Your task to perform on an android device: read, delete, or share a saved page in the chrome app Image 0: 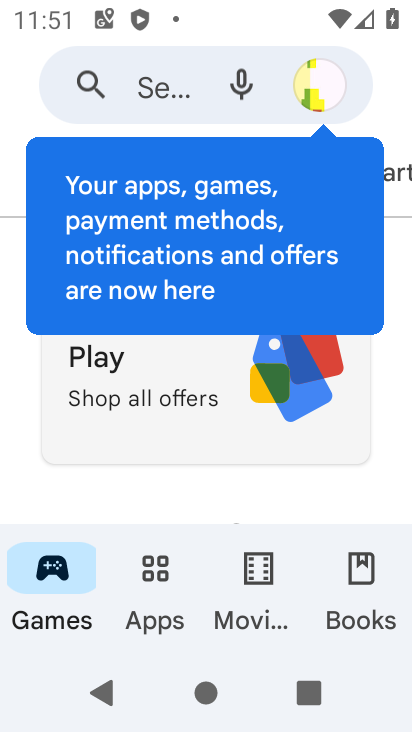
Step 0: press home button
Your task to perform on an android device: read, delete, or share a saved page in the chrome app Image 1: 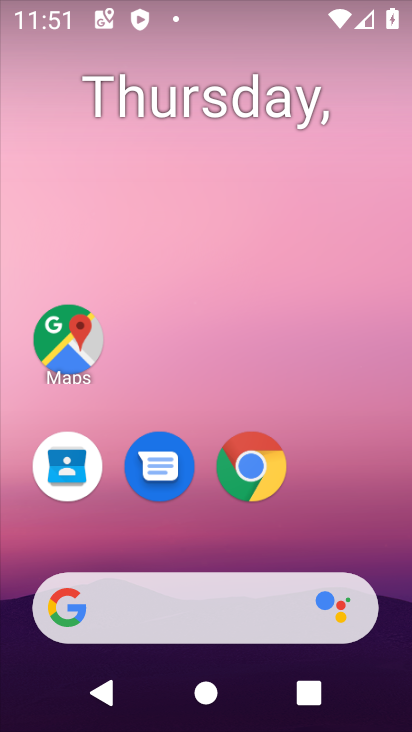
Step 1: click (246, 473)
Your task to perform on an android device: read, delete, or share a saved page in the chrome app Image 2: 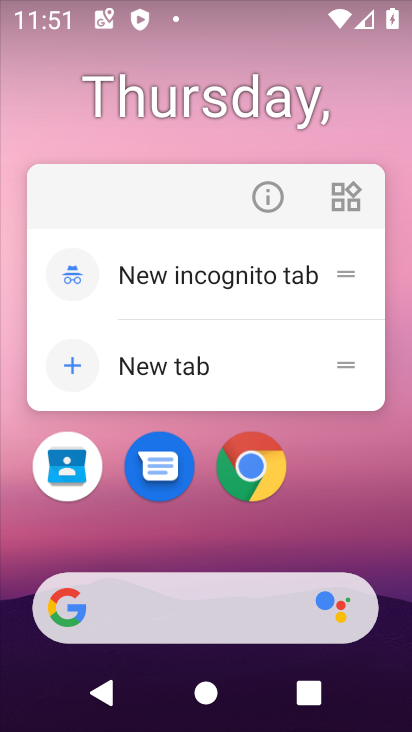
Step 2: click (263, 464)
Your task to perform on an android device: read, delete, or share a saved page in the chrome app Image 3: 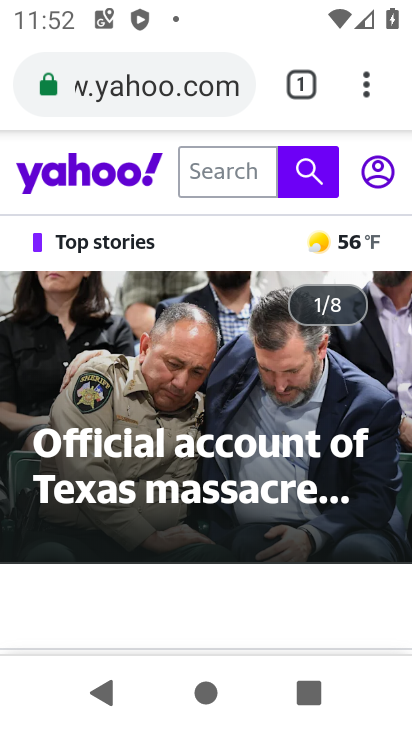
Step 3: task complete